Your task to perform on an android device: check out phone information Image 0: 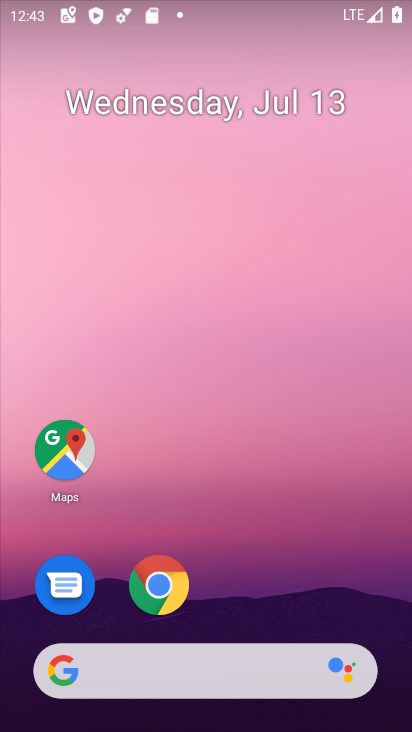
Step 0: press home button
Your task to perform on an android device: check out phone information Image 1: 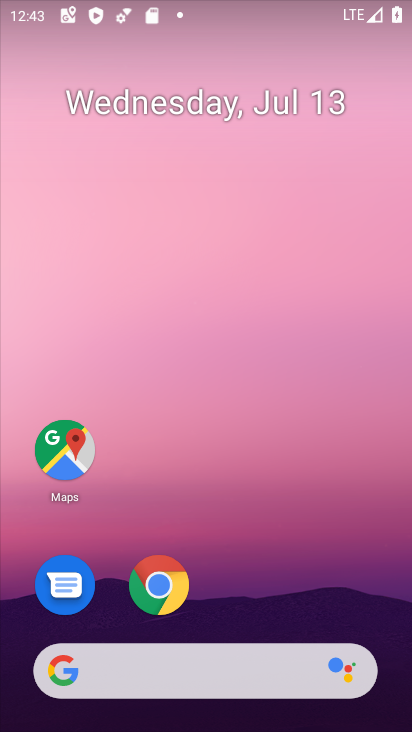
Step 1: drag from (194, 455) to (194, 180)
Your task to perform on an android device: check out phone information Image 2: 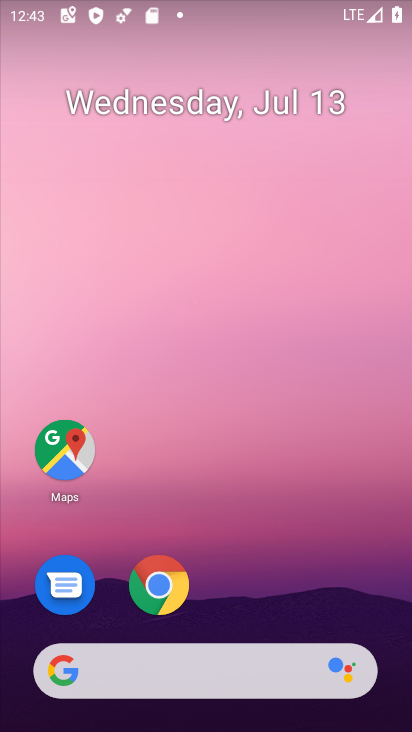
Step 2: drag from (226, 609) to (205, 20)
Your task to perform on an android device: check out phone information Image 3: 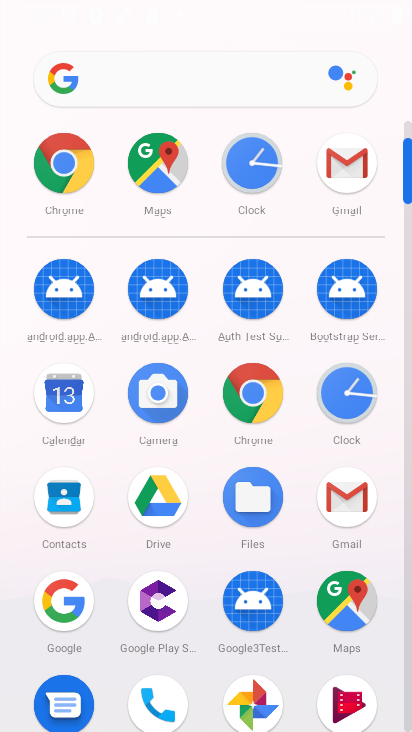
Step 3: drag from (207, 645) to (236, 69)
Your task to perform on an android device: check out phone information Image 4: 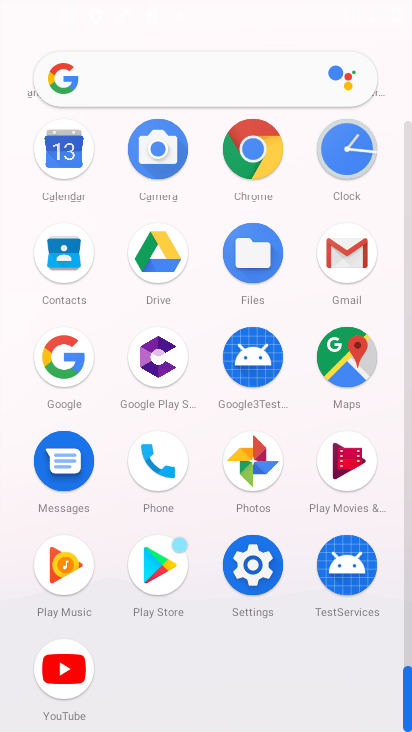
Step 4: click (245, 605)
Your task to perform on an android device: check out phone information Image 5: 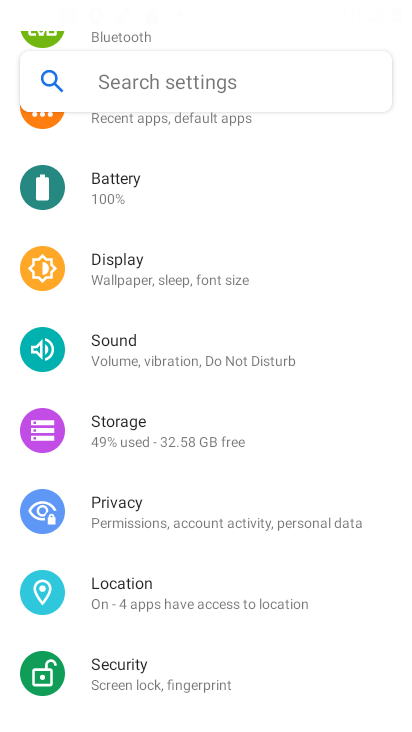
Step 5: drag from (163, 457) to (191, 40)
Your task to perform on an android device: check out phone information Image 6: 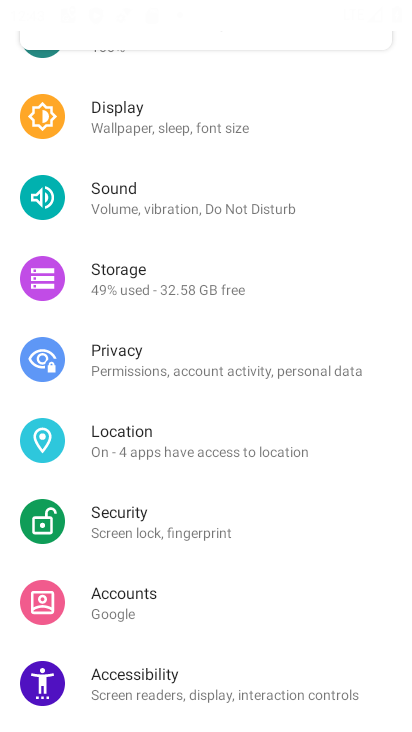
Step 6: drag from (198, 648) to (215, 331)
Your task to perform on an android device: check out phone information Image 7: 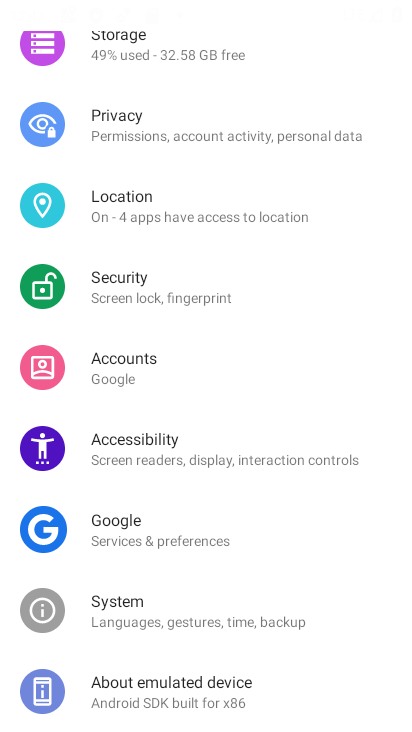
Step 7: drag from (202, 536) to (234, 299)
Your task to perform on an android device: check out phone information Image 8: 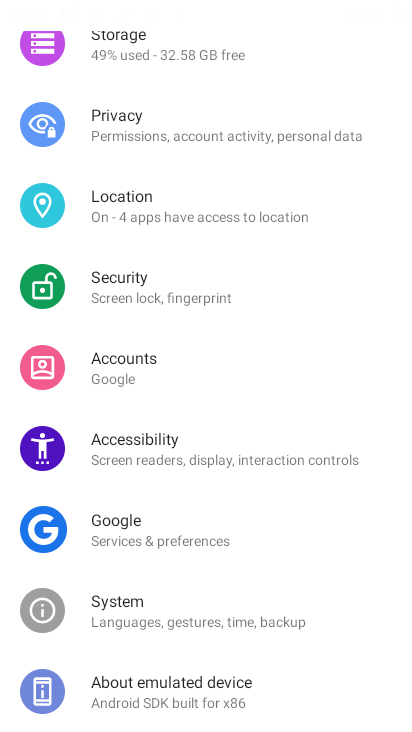
Step 8: click (174, 689)
Your task to perform on an android device: check out phone information Image 9: 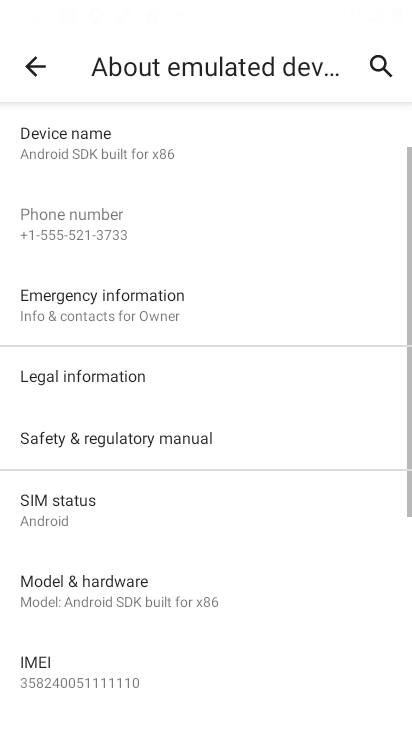
Step 9: task complete